Your task to perform on an android device: toggle notification dots Image 0: 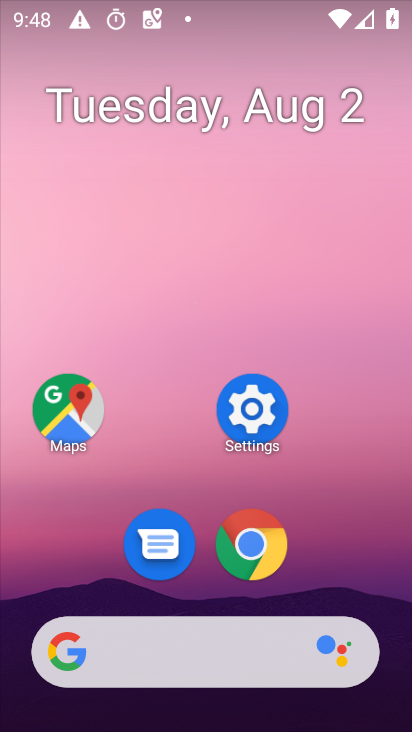
Step 0: press home button
Your task to perform on an android device: toggle notification dots Image 1: 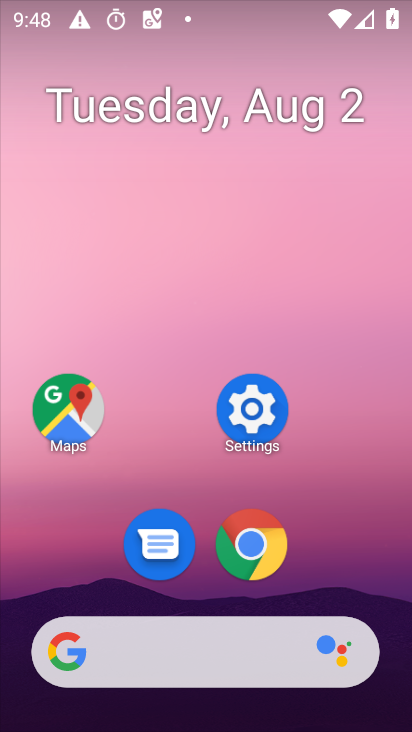
Step 1: click (253, 400)
Your task to perform on an android device: toggle notification dots Image 2: 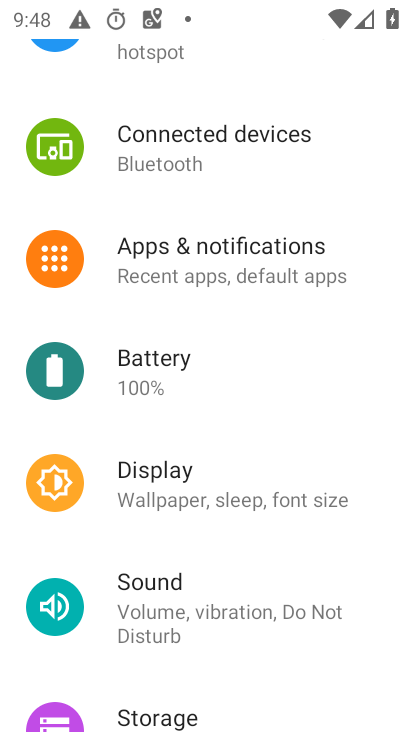
Step 2: click (247, 256)
Your task to perform on an android device: toggle notification dots Image 3: 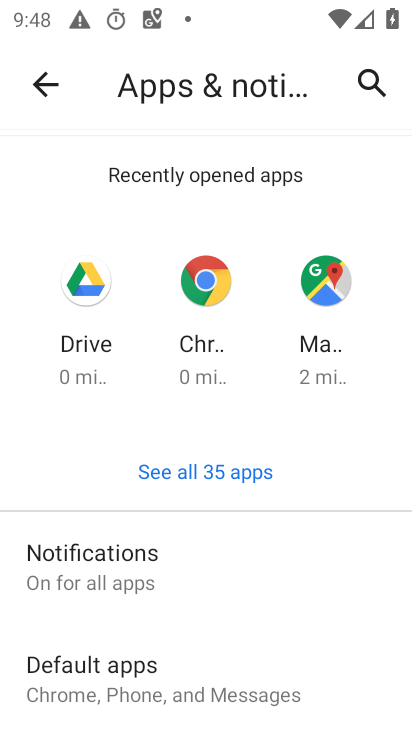
Step 3: drag from (208, 603) to (347, 52)
Your task to perform on an android device: toggle notification dots Image 4: 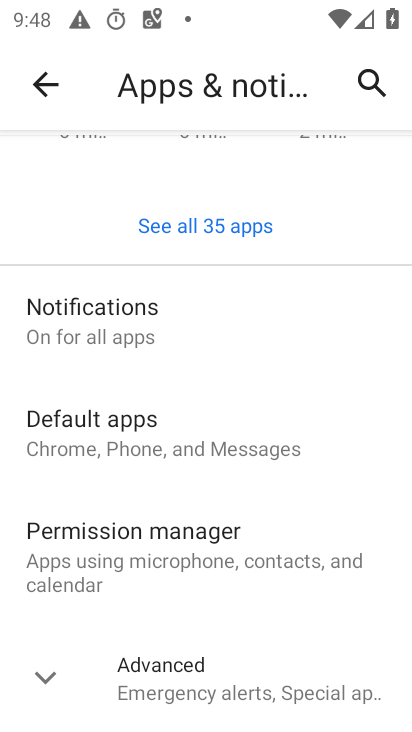
Step 4: click (192, 675)
Your task to perform on an android device: toggle notification dots Image 5: 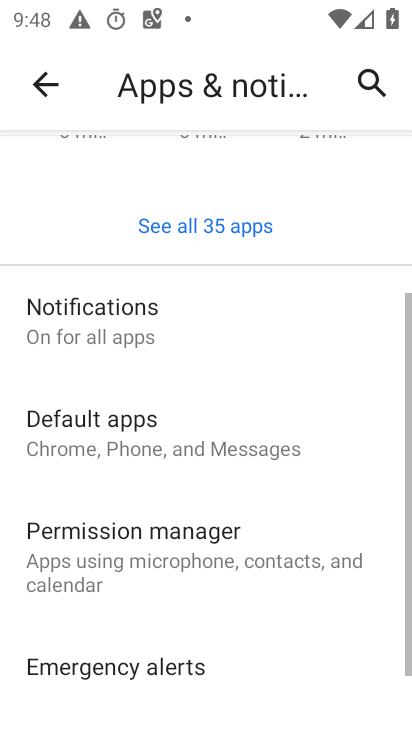
Step 5: drag from (237, 598) to (325, 274)
Your task to perform on an android device: toggle notification dots Image 6: 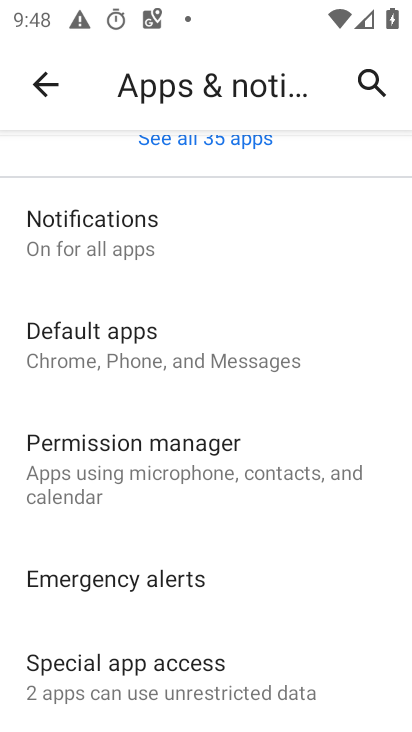
Step 6: click (120, 225)
Your task to perform on an android device: toggle notification dots Image 7: 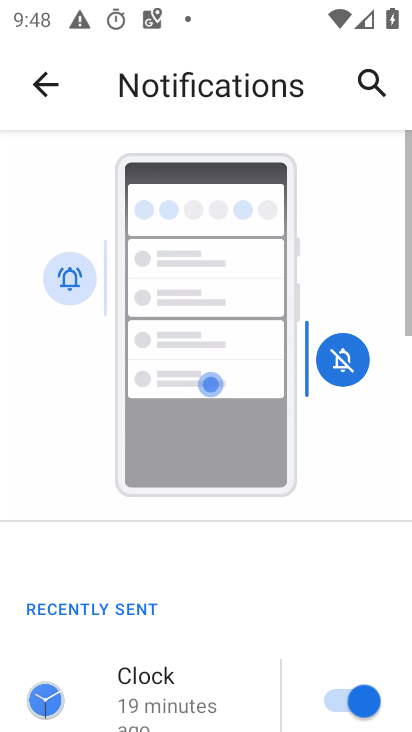
Step 7: drag from (250, 637) to (322, 43)
Your task to perform on an android device: toggle notification dots Image 8: 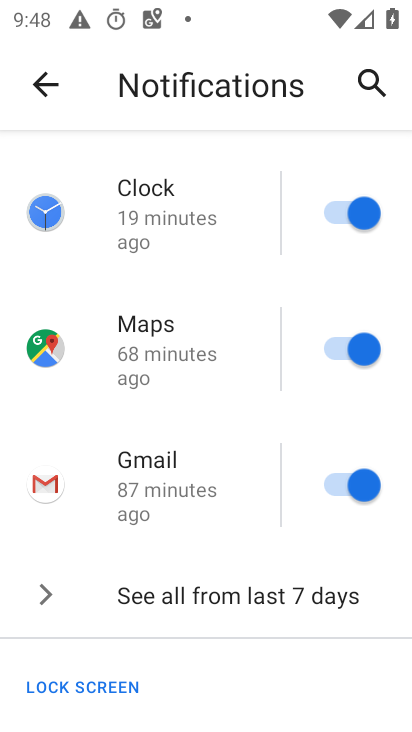
Step 8: drag from (186, 651) to (291, 151)
Your task to perform on an android device: toggle notification dots Image 9: 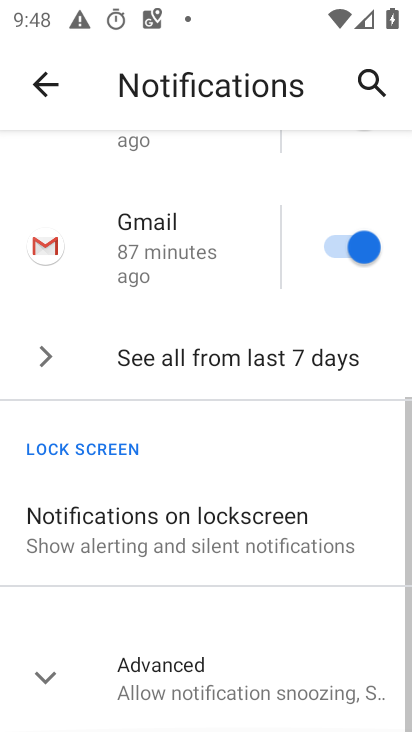
Step 9: click (176, 662)
Your task to perform on an android device: toggle notification dots Image 10: 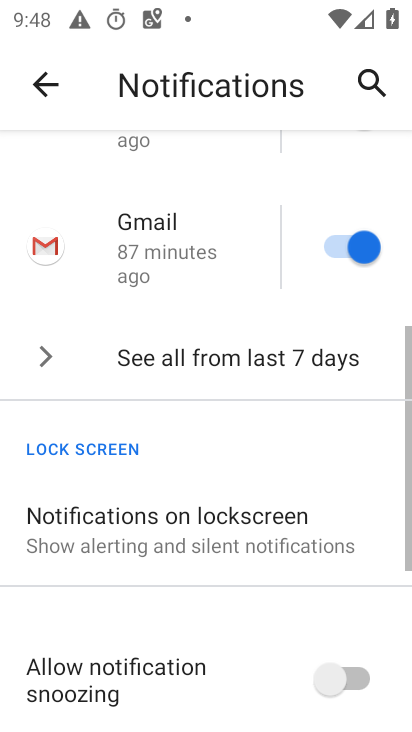
Step 10: drag from (220, 611) to (339, 147)
Your task to perform on an android device: toggle notification dots Image 11: 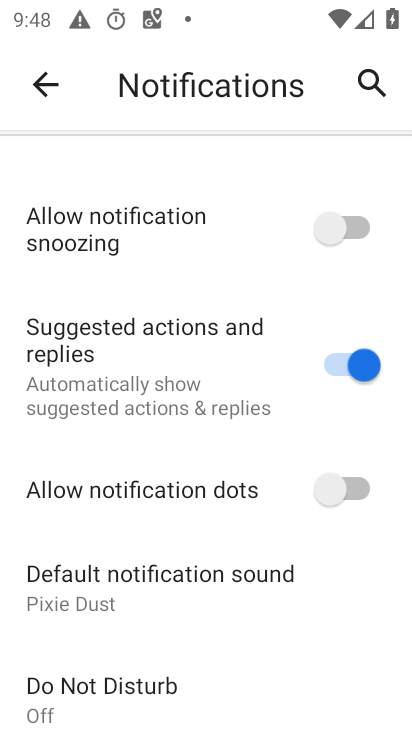
Step 11: click (348, 477)
Your task to perform on an android device: toggle notification dots Image 12: 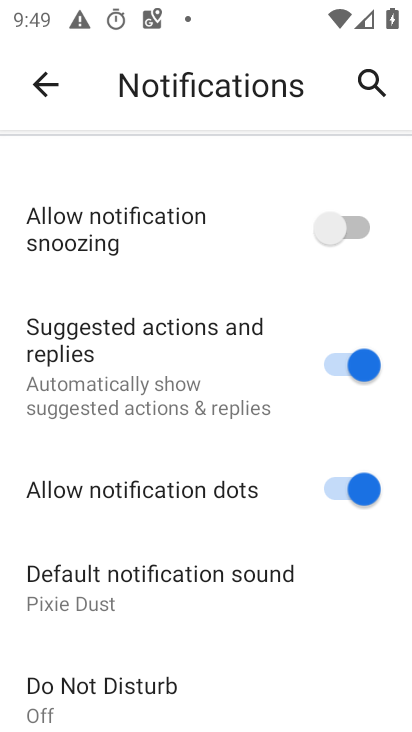
Step 12: task complete